Your task to perform on an android device: check google app version Image 0: 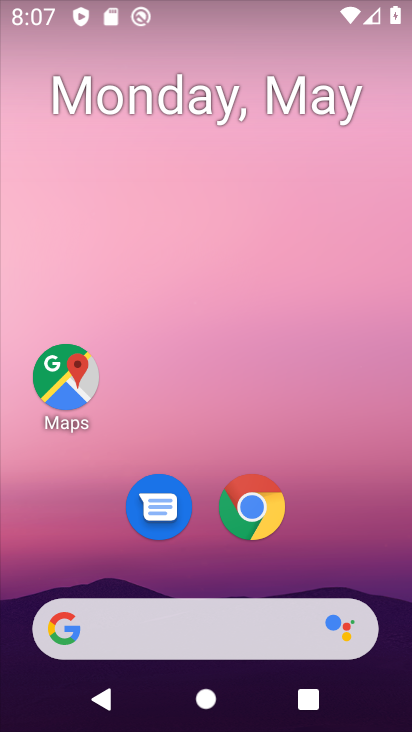
Step 0: click (65, 635)
Your task to perform on an android device: check google app version Image 1: 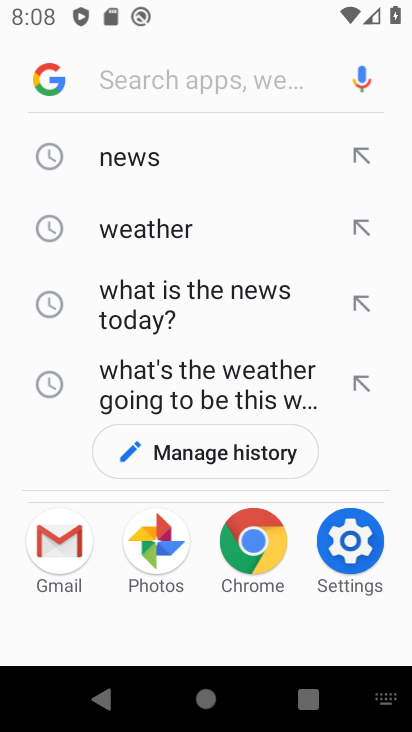
Step 1: click (54, 72)
Your task to perform on an android device: check google app version Image 2: 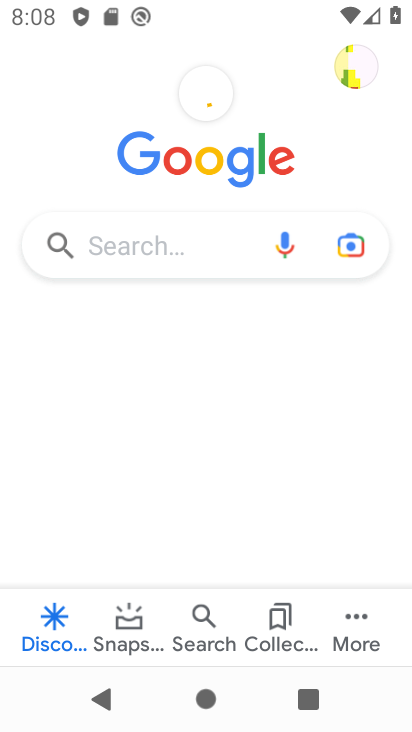
Step 2: click (349, 630)
Your task to perform on an android device: check google app version Image 3: 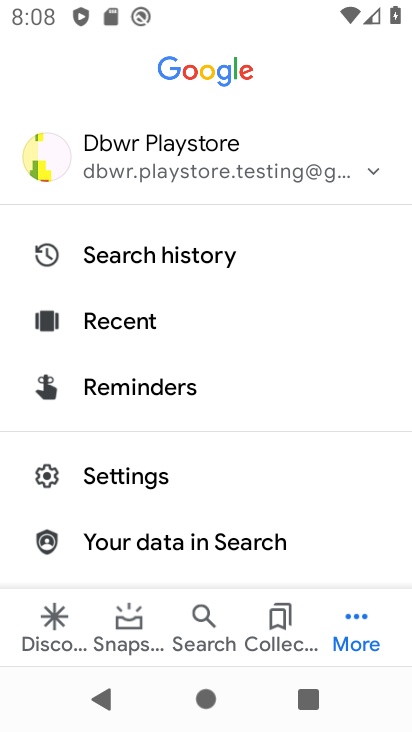
Step 3: click (149, 484)
Your task to perform on an android device: check google app version Image 4: 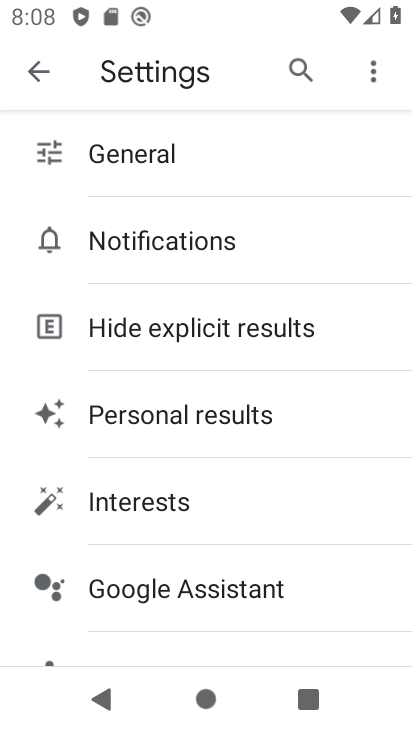
Step 4: drag from (195, 544) to (175, 292)
Your task to perform on an android device: check google app version Image 5: 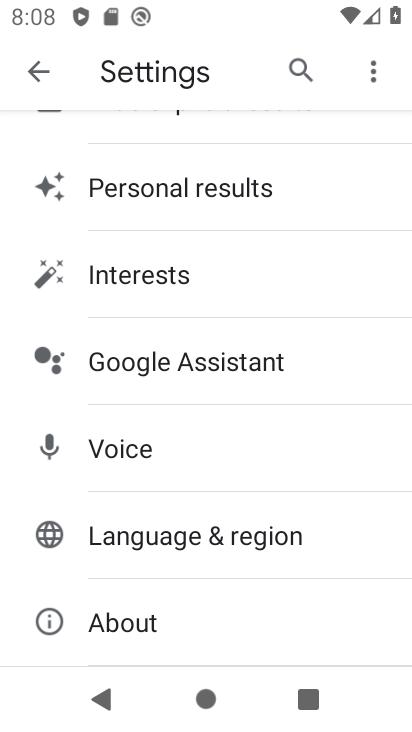
Step 5: click (160, 620)
Your task to perform on an android device: check google app version Image 6: 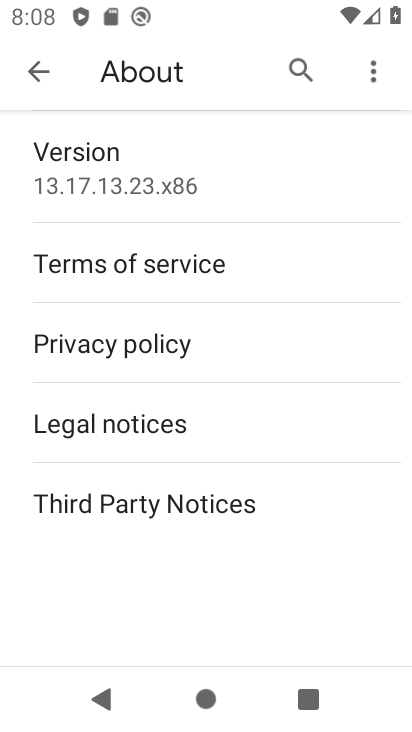
Step 6: task complete